Your task to perform on an android device: View the shopping cart on ebay.com. Search for "razer kraken" on ebay.com, select the first entry, and add it to the cart. Image 0: 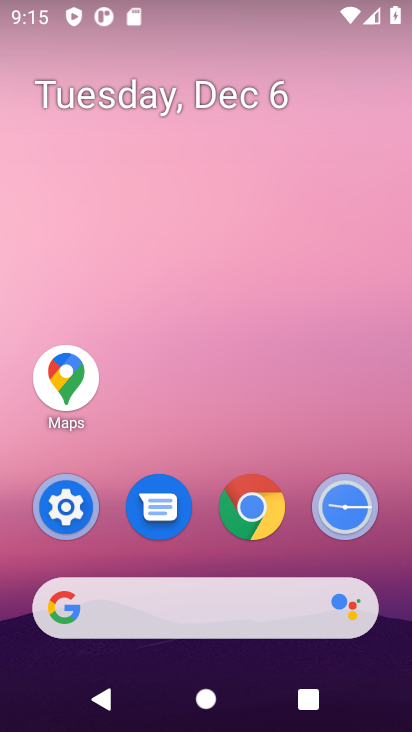
Step 0: press home button
Your task to perform on an android device: View the shopping cart on ebay.com. Search for "razer kraken" on ebay.com, select the first entry, and add it to the cart. Image 1: 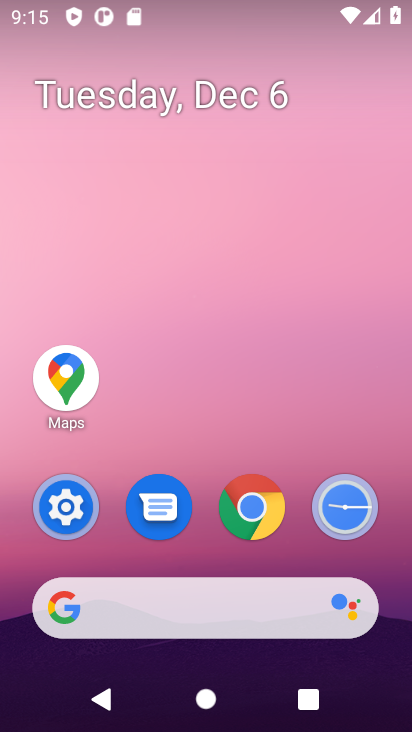
Step 1: click (101, 606)
Your task to perform on an android device: View the shopping cart on ebay.com. Search for "razer kraken" on ebay.com, select the first entry, and add it to the cart. Image 2: 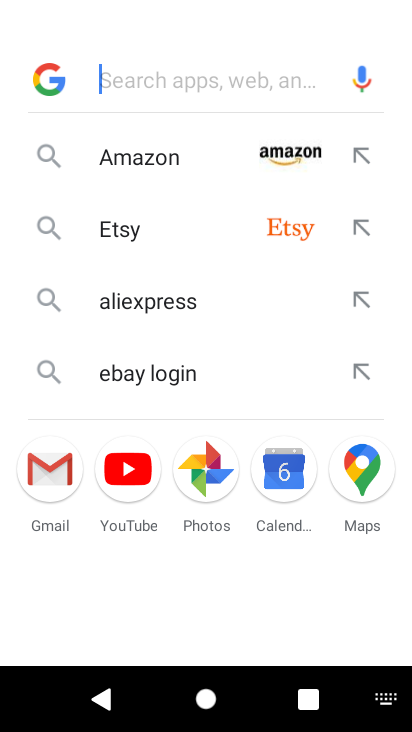
Step 2: type "ebay.com"
Your task to perform on an android device: View the shopping cart on ebay.com. Search for "razer kraken" on ebay.com, select the first entry, and add it to the cart. Image 3: 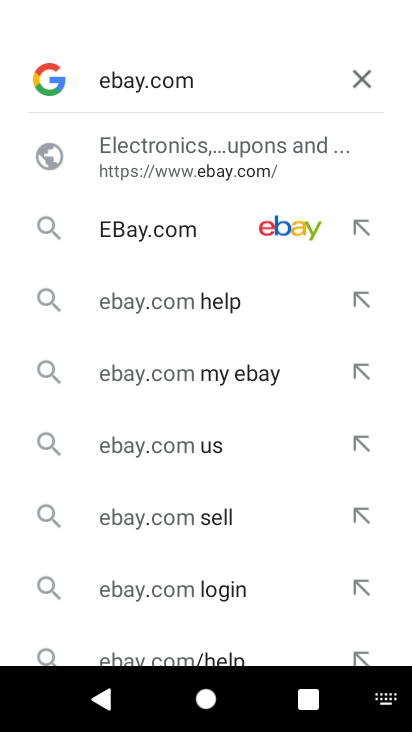
Step 3: press enter
Your task to perform on an android device: View the shopping cart on ebay.com. Search for "razer kraken" on ebay.com, select the first entry, and add it to the cart. Image 4: 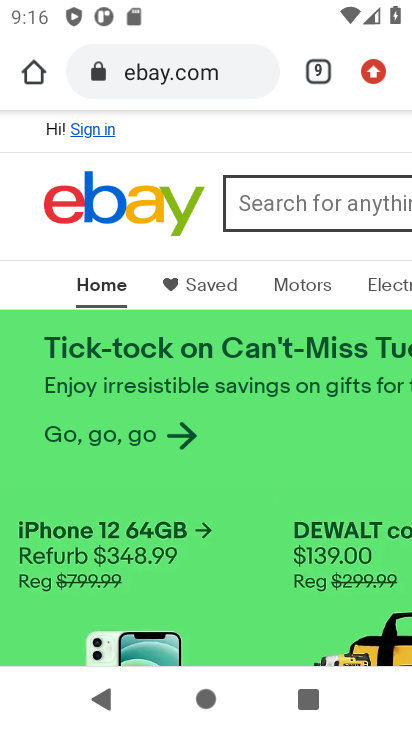
Step 4: drag from (339, 246) to (3, 247)
Your task to perform on an android device: View the shopping cart on ebay.com. Search for "razer kraken" on ebay.com, select the first entry, and add it to the cart. Image 5: 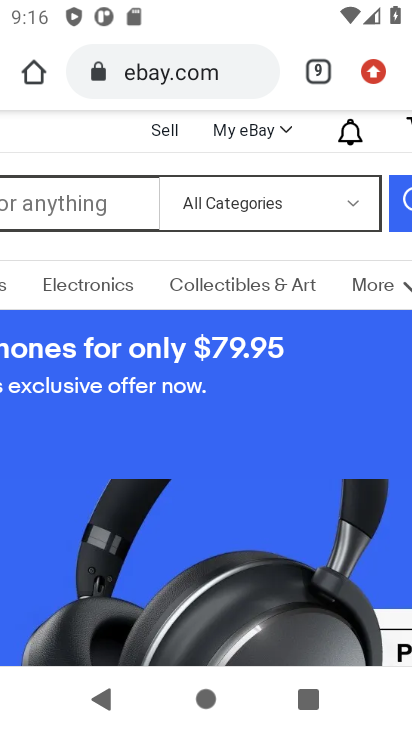
Step 5: drag from (355, 248) to (5, 241)
Your task to perform on an android device: View the shopping cart on ebay.com. Search for "razer kraken" on ebay.com, select the first entry, and add it to the cart. Image 6: 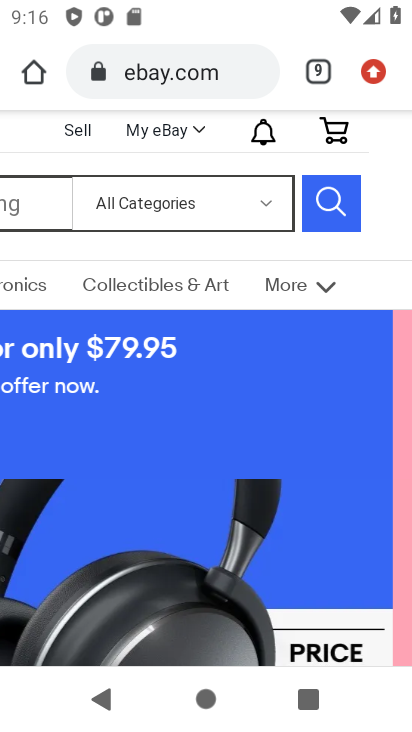
Step 6: click (334, 128)
Your task to perform on an android device: View the shopping cart on ebay.com. Search for "razer kraken" on ebay.com, select the first entry, and add it to the cart. Image 7: 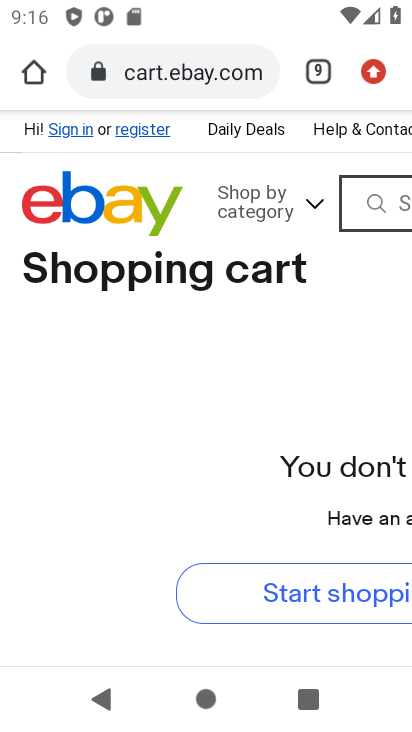
Step 7: drag from (329, 370) to (0, 362)
Your task to perform on an android device: View the shopping cart on ebay.com. Search for "razer kraken" on ebay.com, select the first entry, and add it to the cart. Image 8: 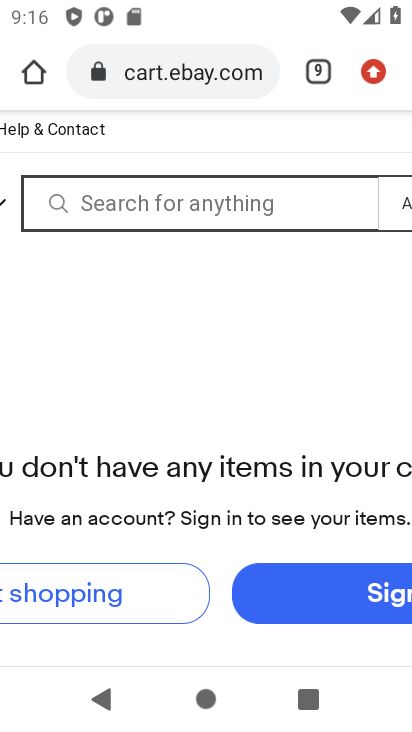
Step 8: click (188, 201)
Your task to perform on an android device: View the shopping cart on ebay.com. Search for "razer kraken" on ebay.com, select the first entry, and add it to the cart. Image 9: 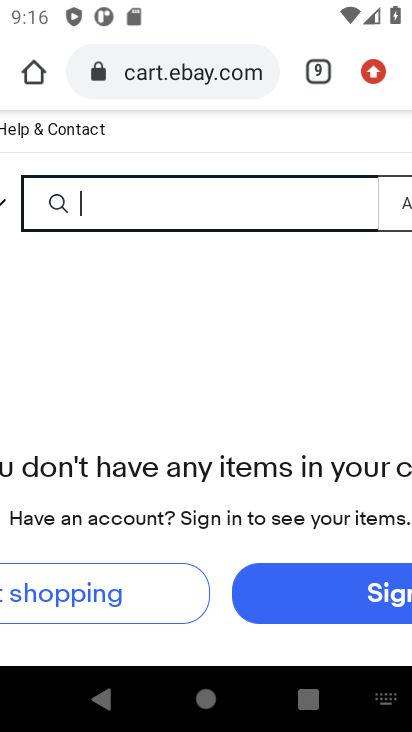
Step 9: type "razer kraken"
Your task to perform on an android device: View the shopping cart on ebay.com. Search for "razer kraken" on ebay.com, select the first entry, and add it to the cart. Image 10: 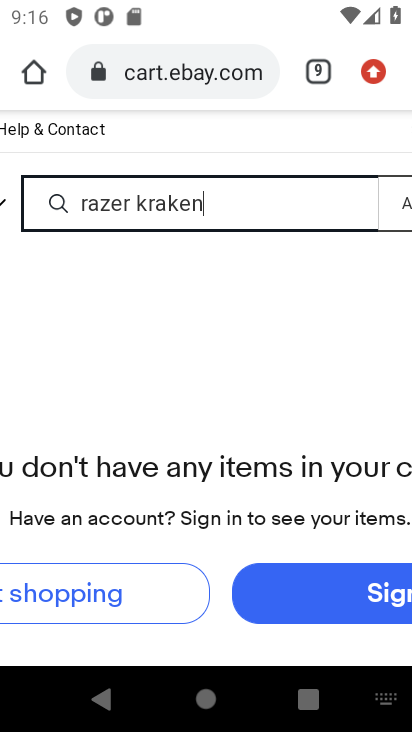
Step 10: press enter
Your task to perform on an android device: View the shopping cart on ebay.com. Search for "razer kraken" on ebay.com, select the first entry, and add it to the cart. Image 11: 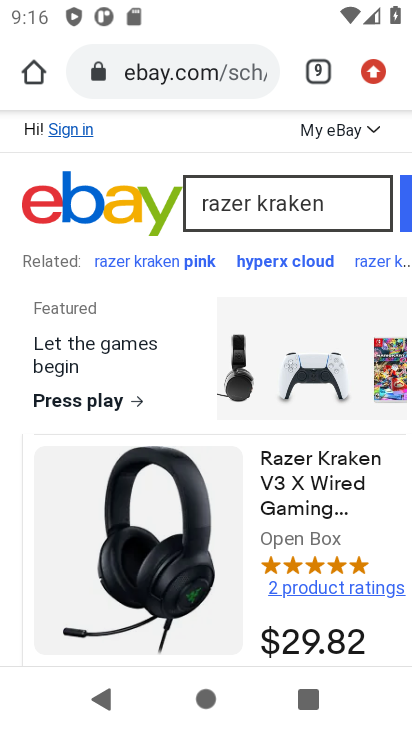
Step 11: drag from (286, 560) to (284, 283)
Your task to perform on an android device: View the shopping cart on ebay.com. Search for "razer kraken" on ebay.com, select the first entry, and add it to the cart. Image 12: 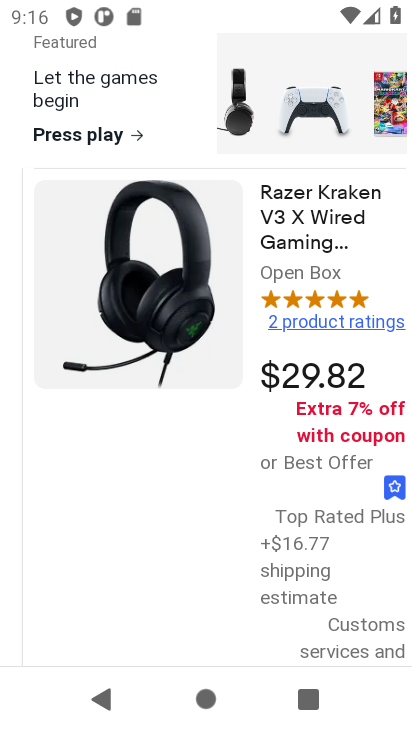
Step 12: click (295, 257)
Your task to perform on an android device: View the shopping cart on ebay.com. Search for "razer kraken" on ebay.com, select the first entry, and add it to the cart. Image 13: 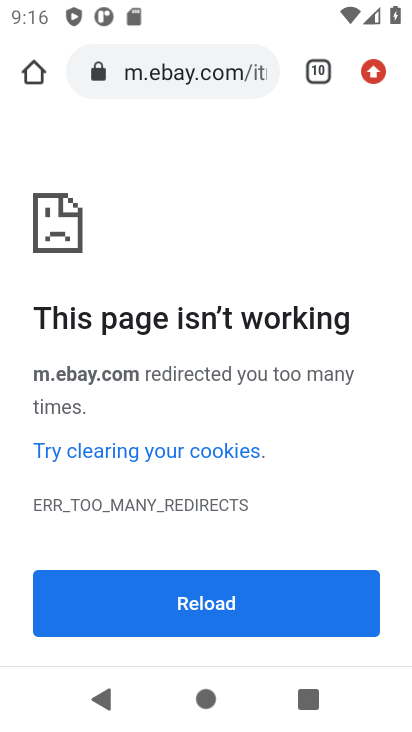
Step 13: task complete